Your task to perform on an android device: change alarm snooze length Image 0: 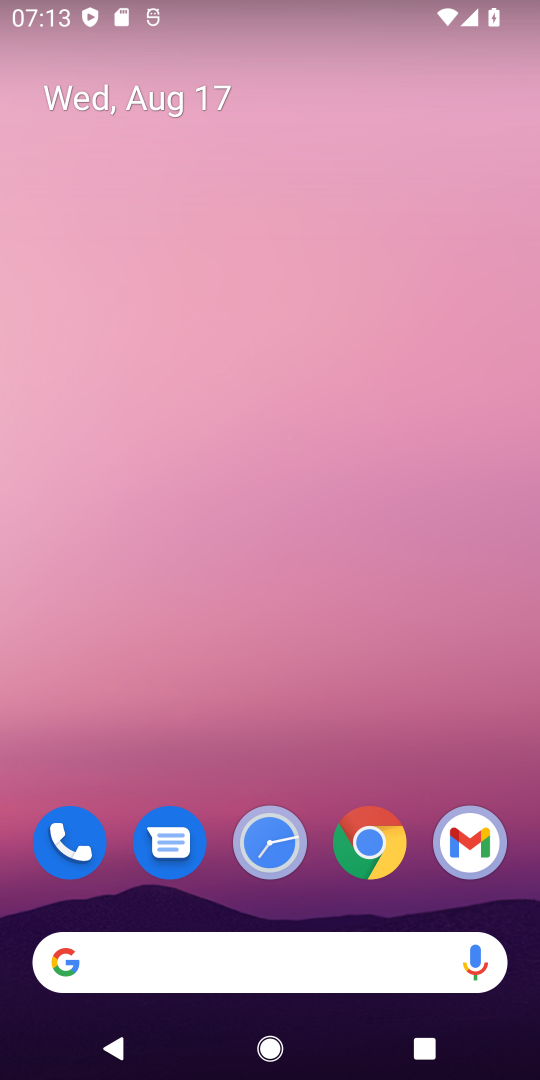
Step 0: drag from (291, 747) to (387, 0)
Your task to perform on an android device: change alarm snooze length Image 1: 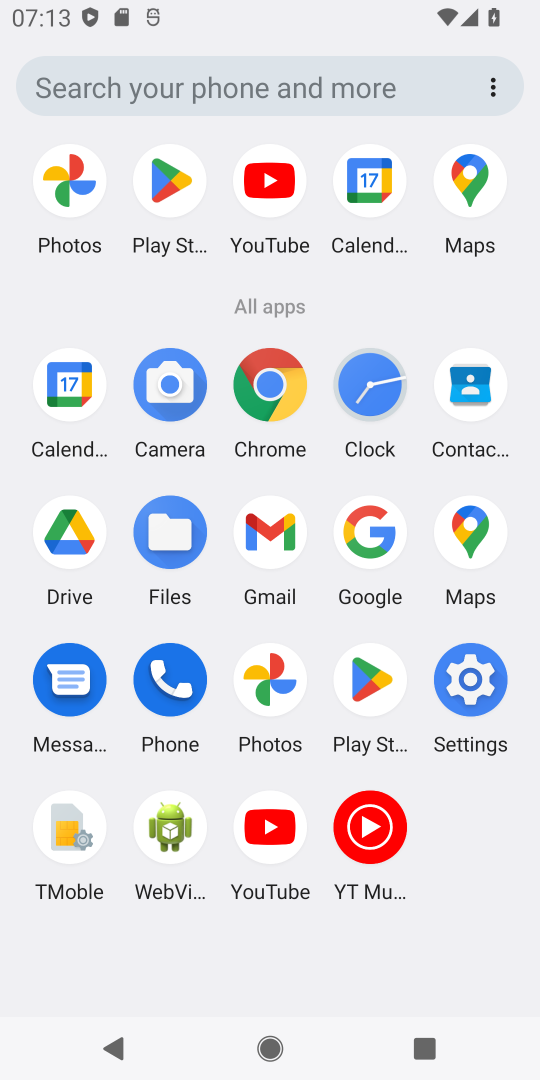
Step 1: click (373, 377)
Your task to perform on an android device: change alarm snooze length Image 2: 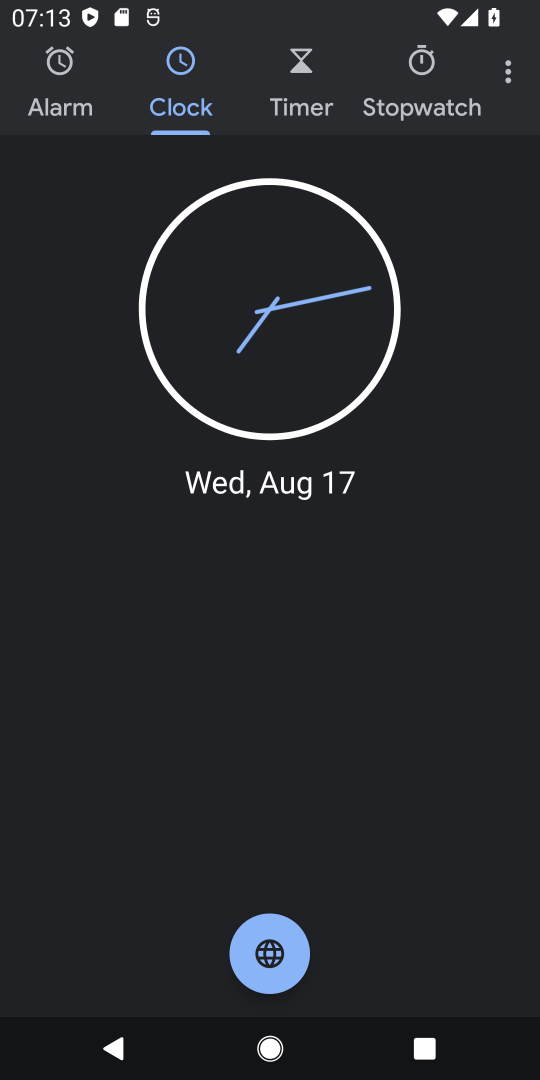
Step 2: click (513, 76)
Your task to perform on an android device: change alarm snooze length Image 3: 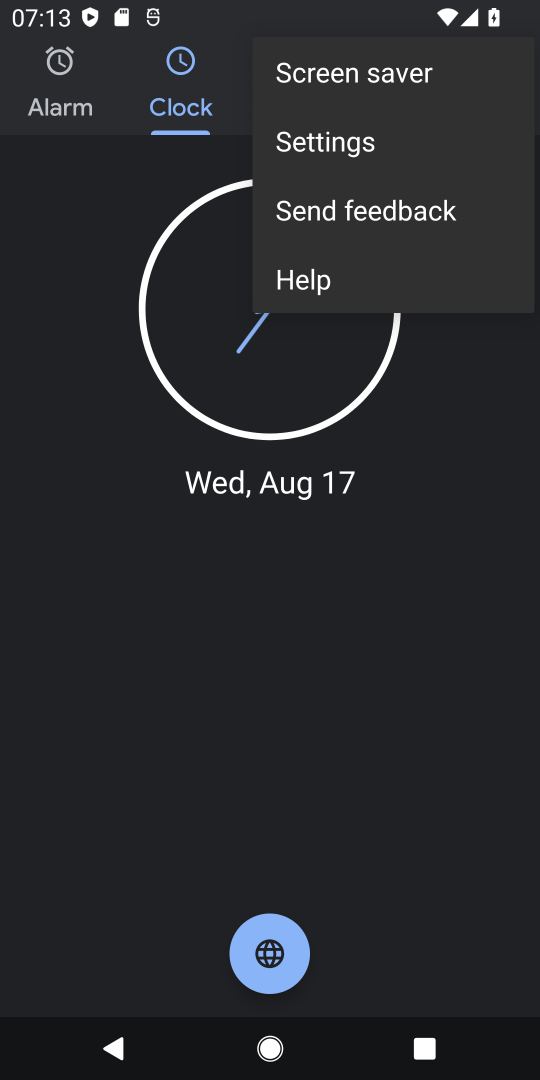
Step 3: click (393, 141)
Your task to perform on an android device: change alarm snooze length Image 4: 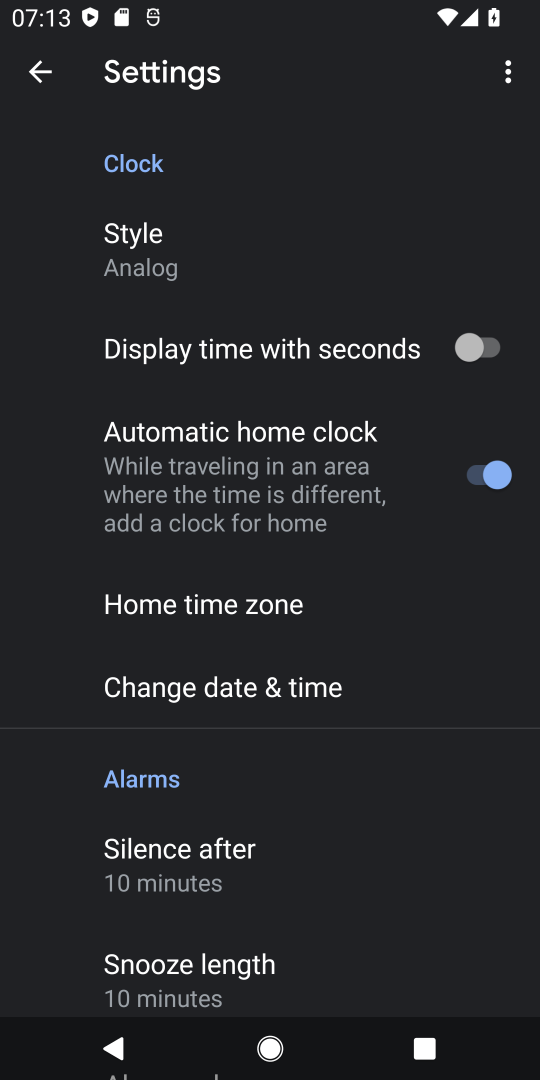
Step 4: drag from (297, 787) to (355, 201)
Your task to perform on an android device: change alarm snooze length Image 5: 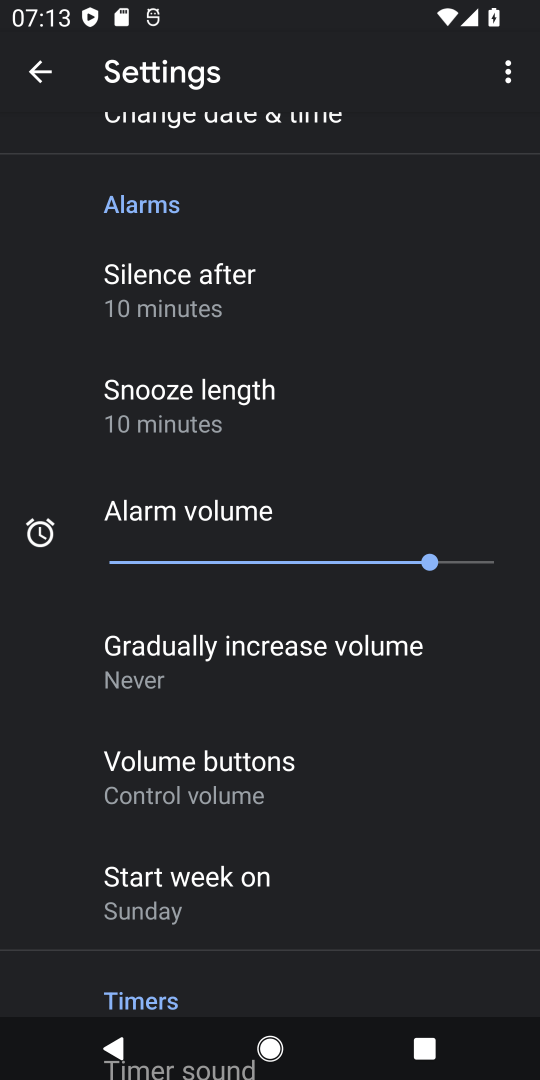
Step 5: click (234, 409)
Your task to perform on an android device: change alarm snooze length Image 6: 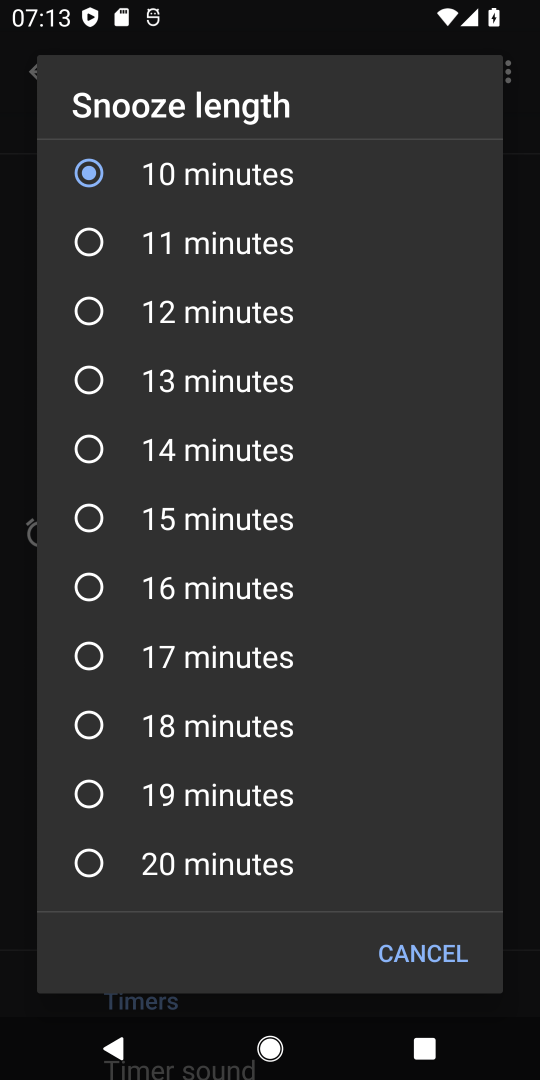
Step 6: click (96, 315)
Your task to perform on an android device: change alarm snooze length Image 7: 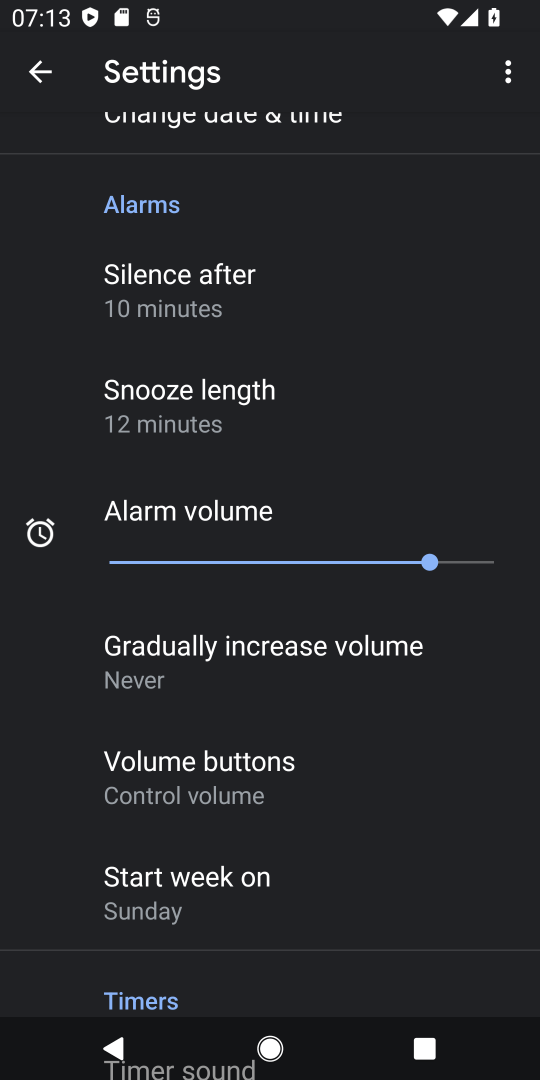
Step 7: task complete